Your task to perform on an android device: What's on my calendar tomorrow? Image 0: 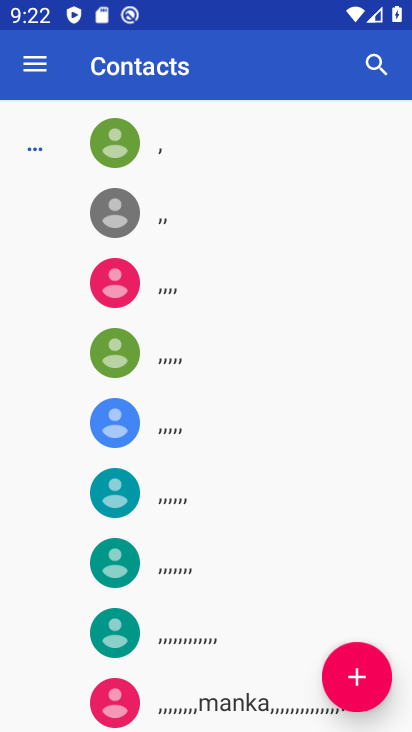
Step 0: press home button
Your task to perform on an android device: What's on my calendar tomorrow? Image 1: 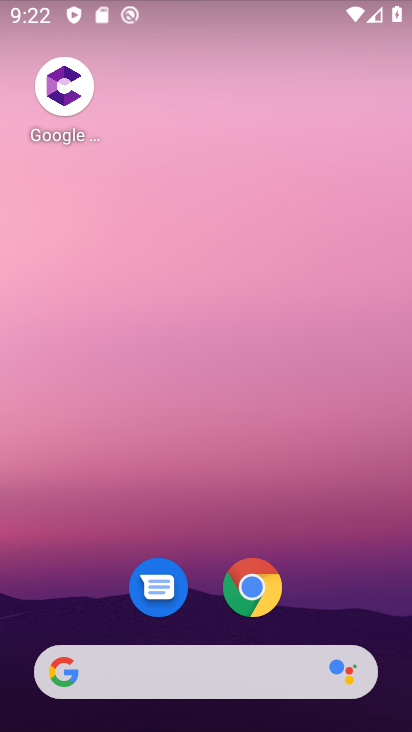
Step 1: drag from (379, 594) to (312, 129)
Your task to perform on an android device: What's on my calendar tomorrow? Image 2: 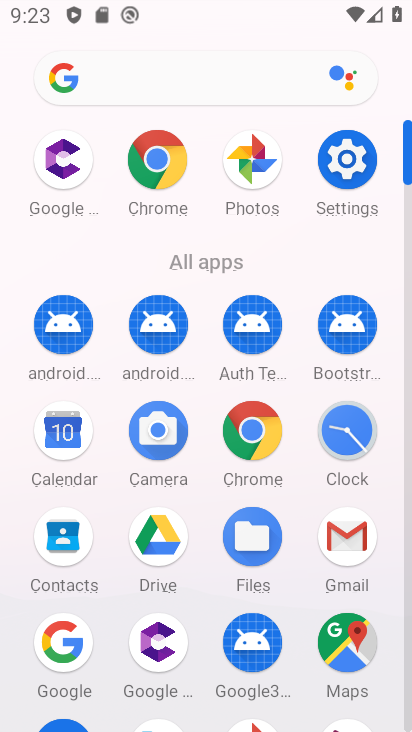
Step 2: click (64, 440)
Your task to perform on an android device: What's on my calendar tomorrow? Image 3: 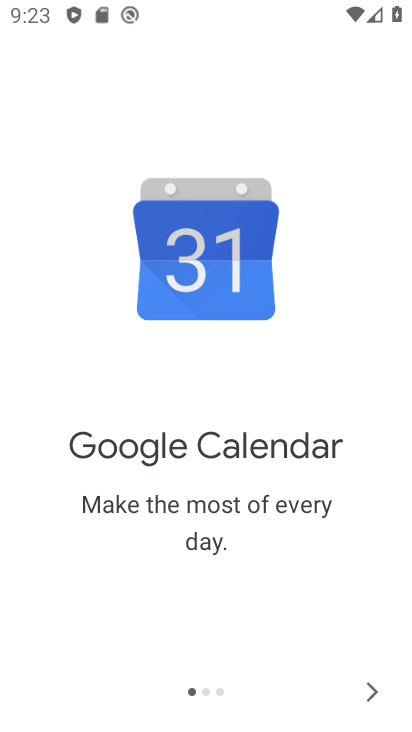
Step 3: click (373, 700)
Your task to perform on an android device: What's on my calendar tomorrow? Image 4: 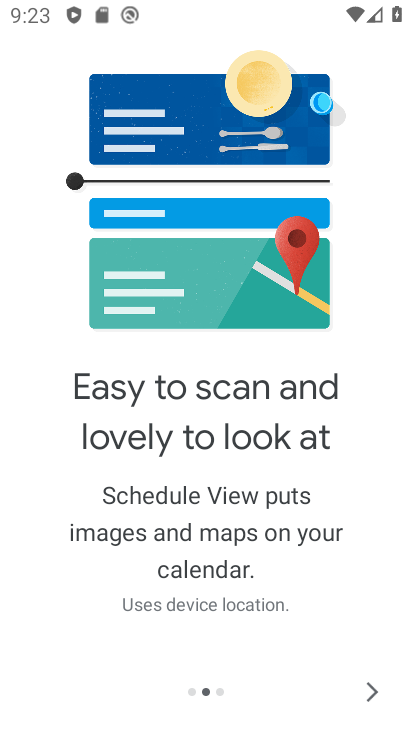
Step 4: click (379, 686)
Your task to perform on an android device: What's on my calendar tomorrow? Image 5: 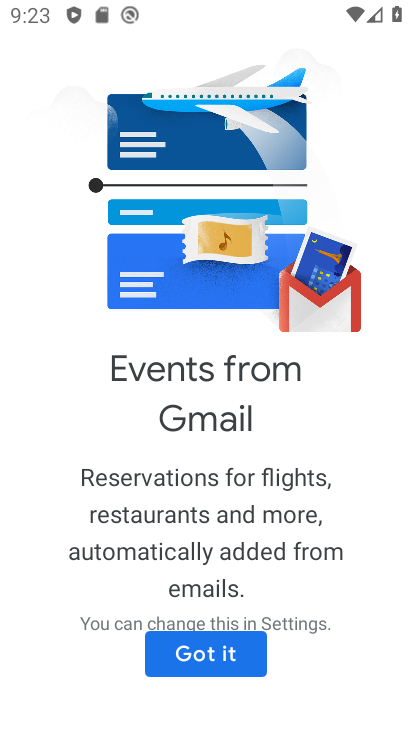
Step 5: click (223, 668)
Your task to perform on an android device: What's on my calendar tomorrow? Image 6: 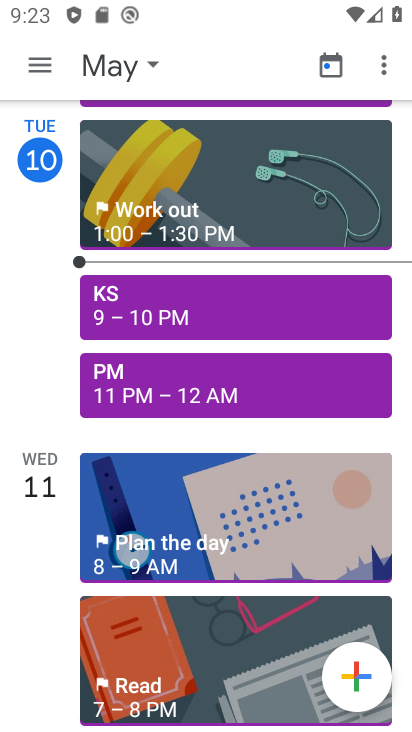
Step 6: task complete